Your task to perform on an android device: stop showing notifications on the lock screen Image 0: 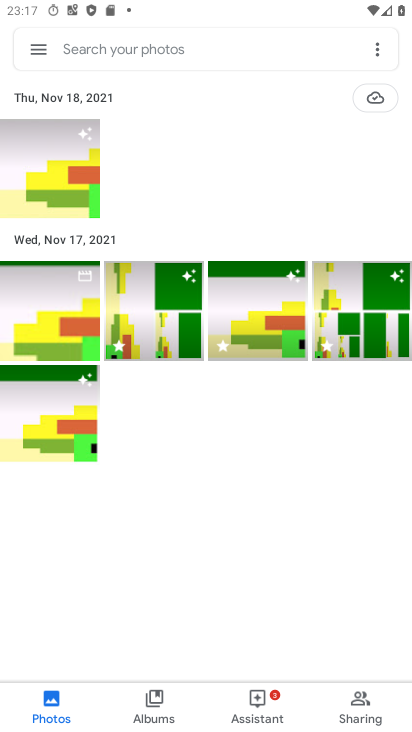
Step 0: press home button
Your task to perform on an android device: stop showing notifications on the lock screen Image 1: 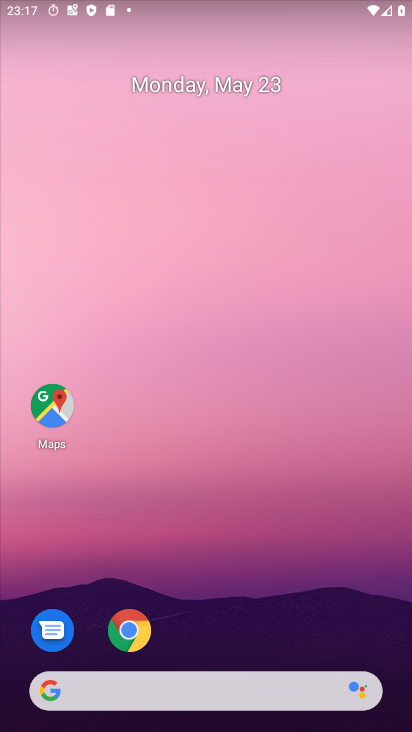
Step 1: drag from (189, 652) to (227, 4)
Your task to perform on an android device: stop showing notifications on the lock screen Image 2: 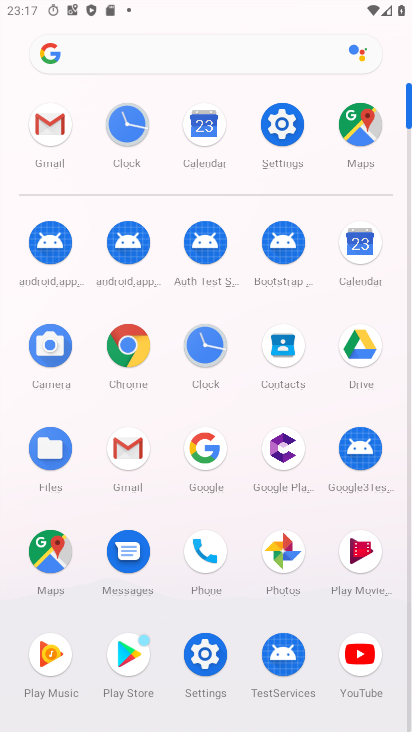
Step 2: click (286, 125)
Your task to perform on an android device: stop showing notifications on the lock screen Image 3: 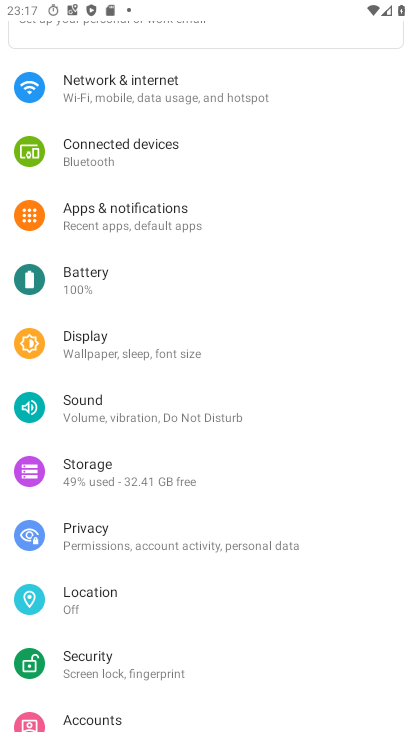
Step 3: click (144, 218)
Your task to perform on an android device: stop showing notifications on the lock screen Image 4: 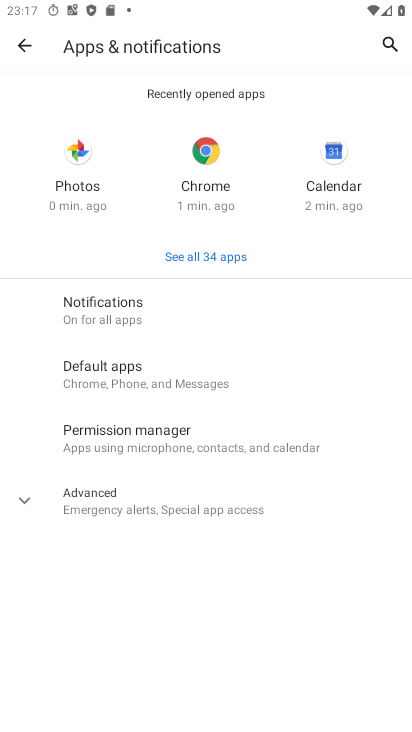
Step 4: click (99, 303)
Your task to perform on an android device: stop showing notifications on the lock screen Image 5: 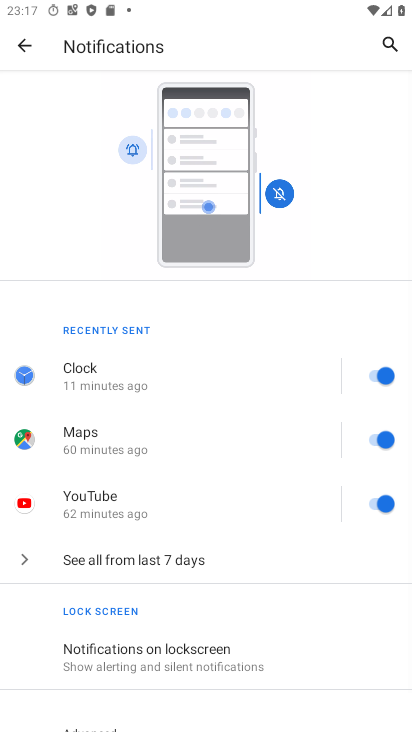
Step 5: drag from (128, 623) to (142, 395)
Your task to perform on an android device: stop showing notifications on the lock screen Image 6: 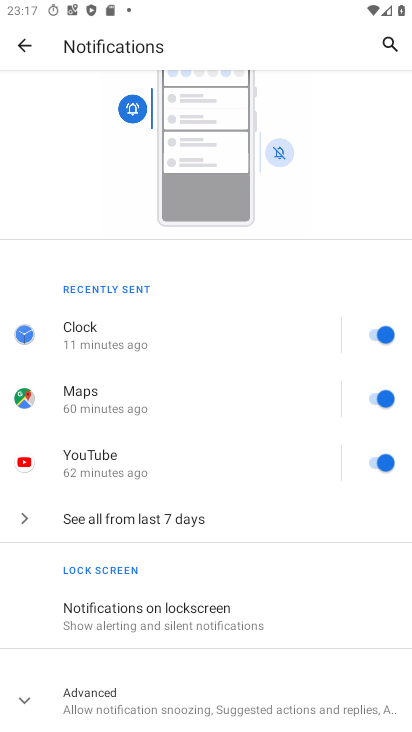
Step 6: click (115, 617)
Your task to perform on an android device: stop showing notifications on the lock screen Image 7: 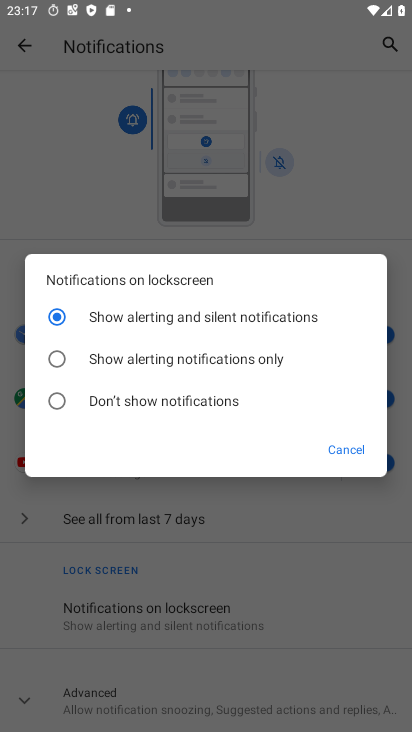
Step 7: click (58, 397)
Your task to perform on an android device: stop showing notifications on the lock screen Image 8: 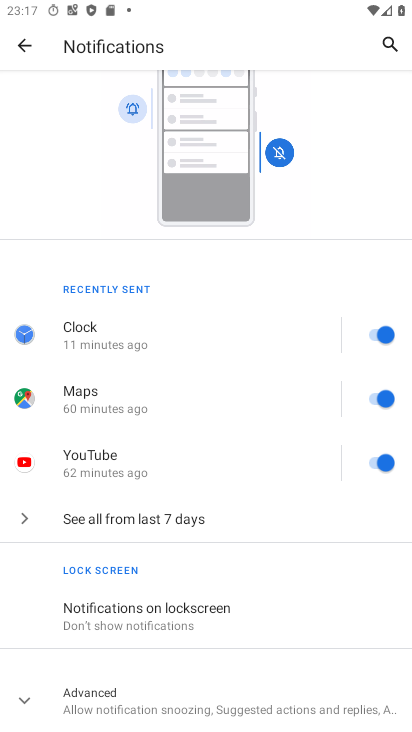
Step 8: task complete